Your task to perform on an android device: Search for razer blade on newegg, select the first entry, and add it to the cart. Image 0: 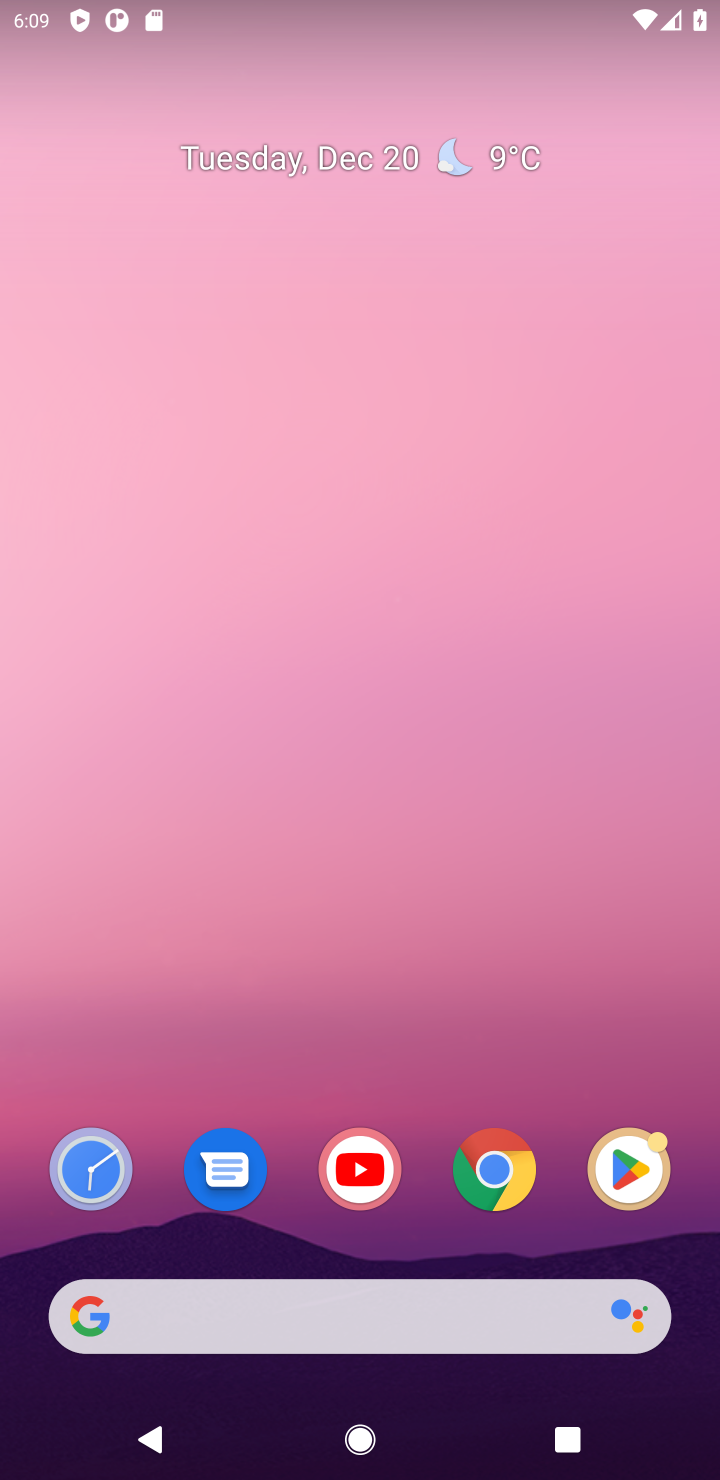
Step 0: click (470, 1194)
Your task to perform on an android device: Search for razer blade on newegg, select the first entry, and add it to the cart. Image 1: 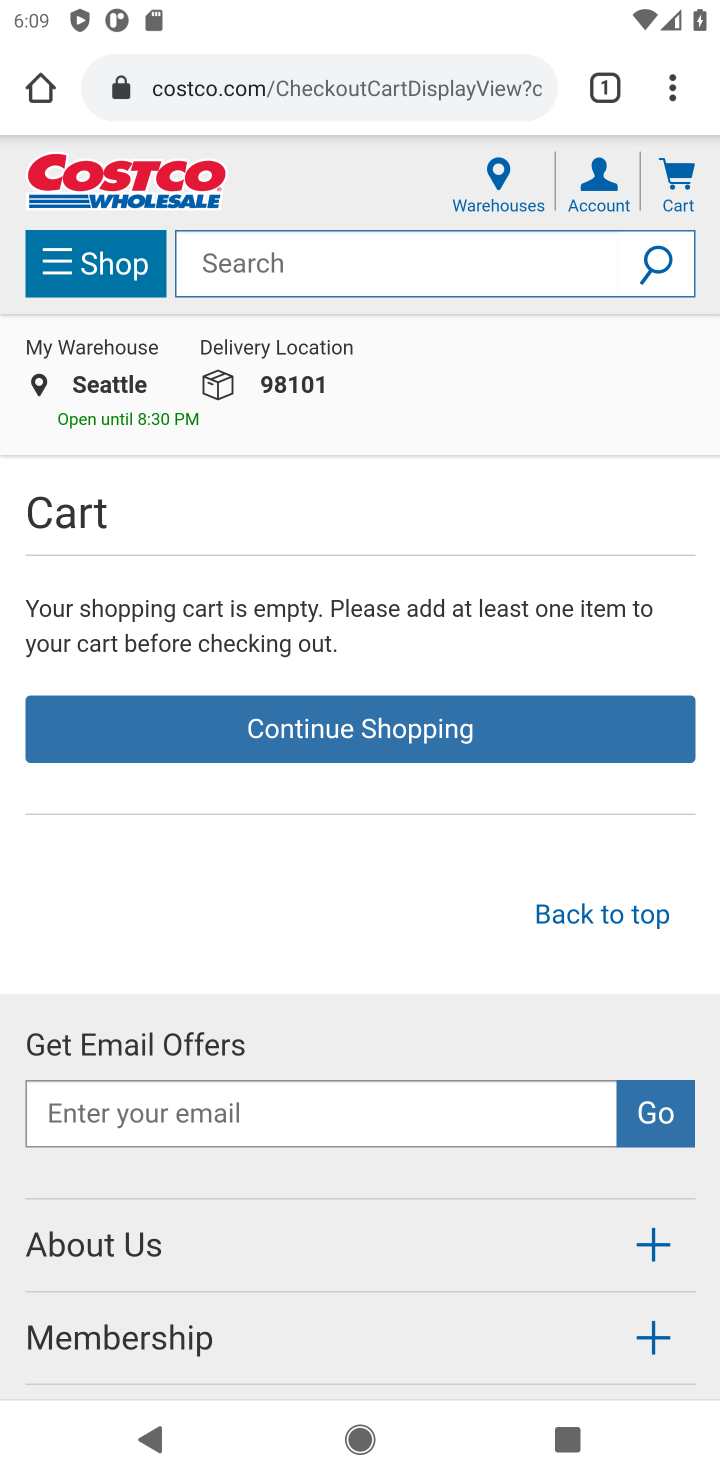
Step 1: click (308, 102)
Your task to perform on an android device: Search for razer blade on newegg, select the first entry, and add it to the cart. Image 2: 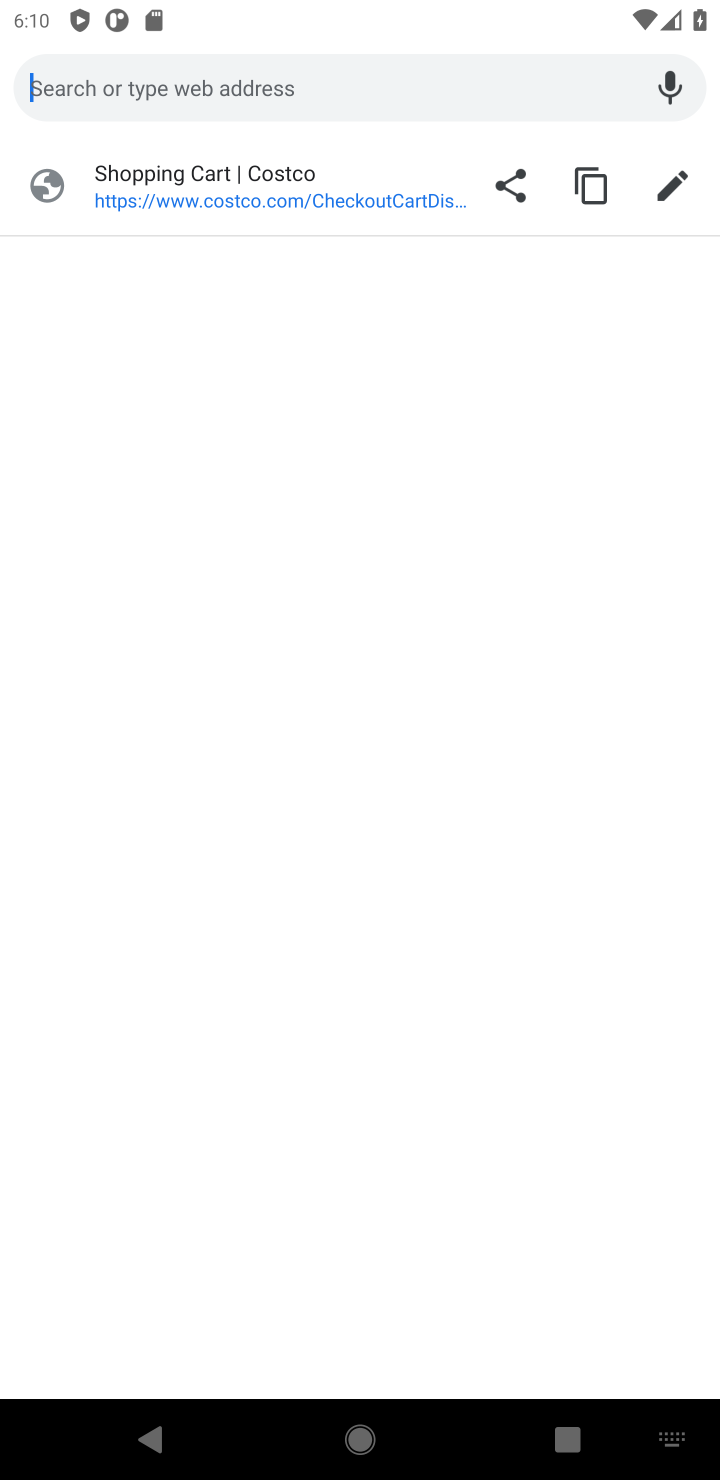
Step 2: type "newegg"
Your task to perform on an android device: Search for razer blade on newegg, select the first entry, and add it to the cart. Image 3: 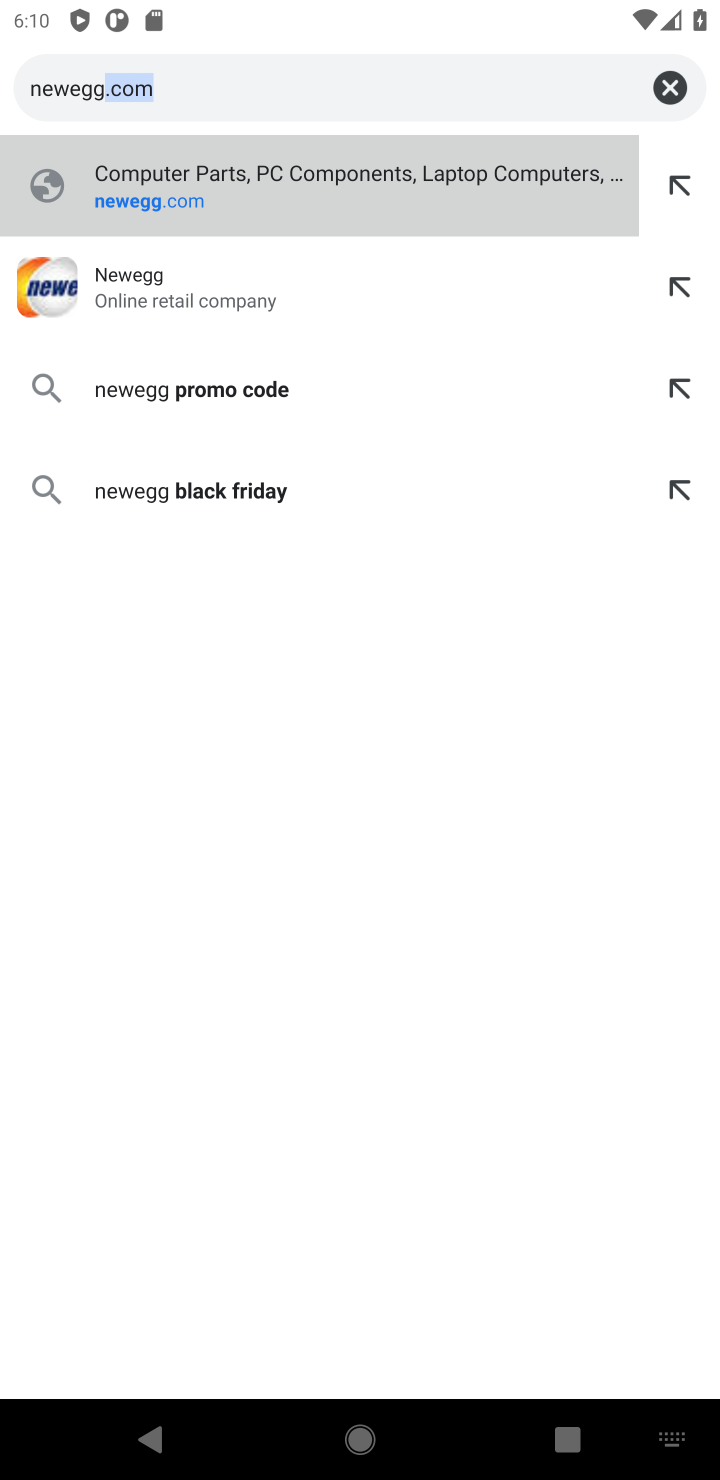
Step 3: click (264, 190)
Your task to perform on an android device: Search for razer blade on newegg, select the first entry, and add it to the cart. Image 4: 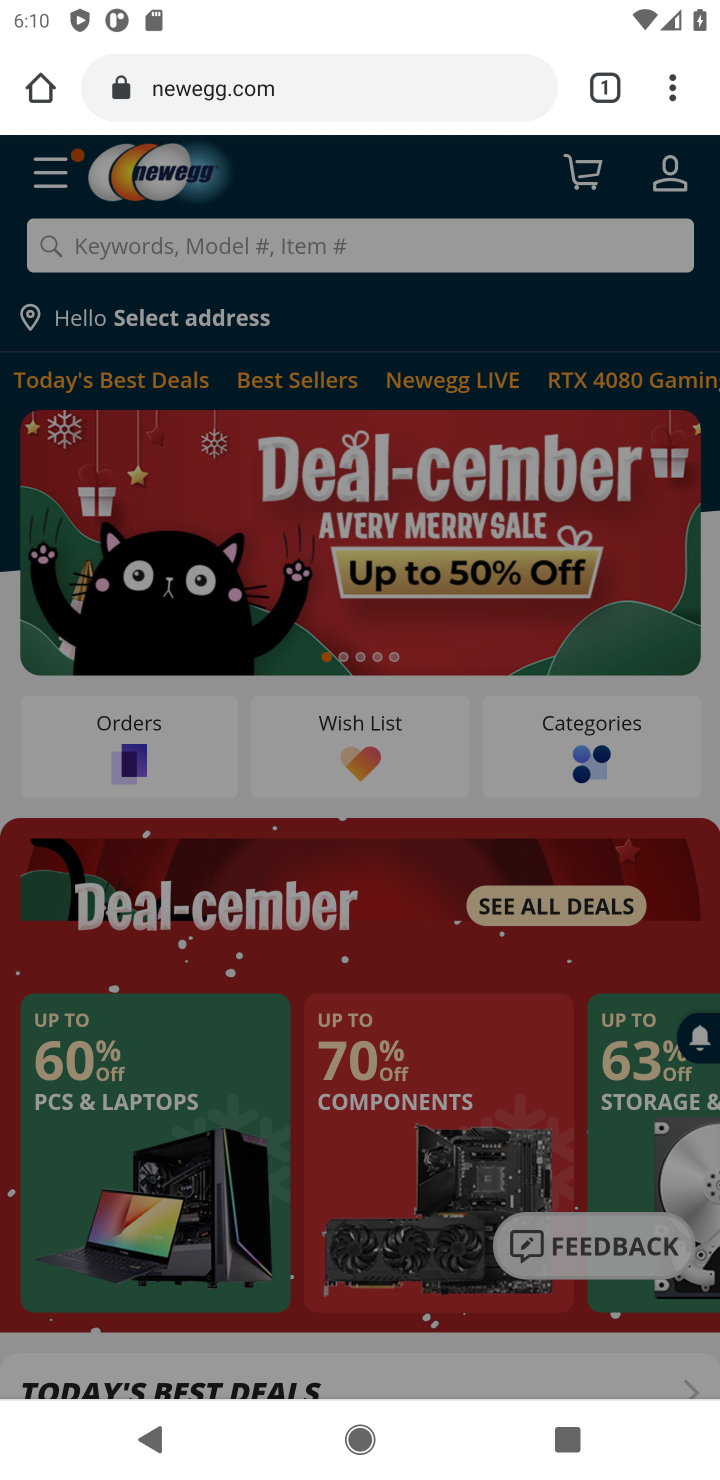
Step 4: click (306, 252)
Your task to perform on an android device: Search for razer blade on newegg, select the first entry, and add it to the cart. Image 5: 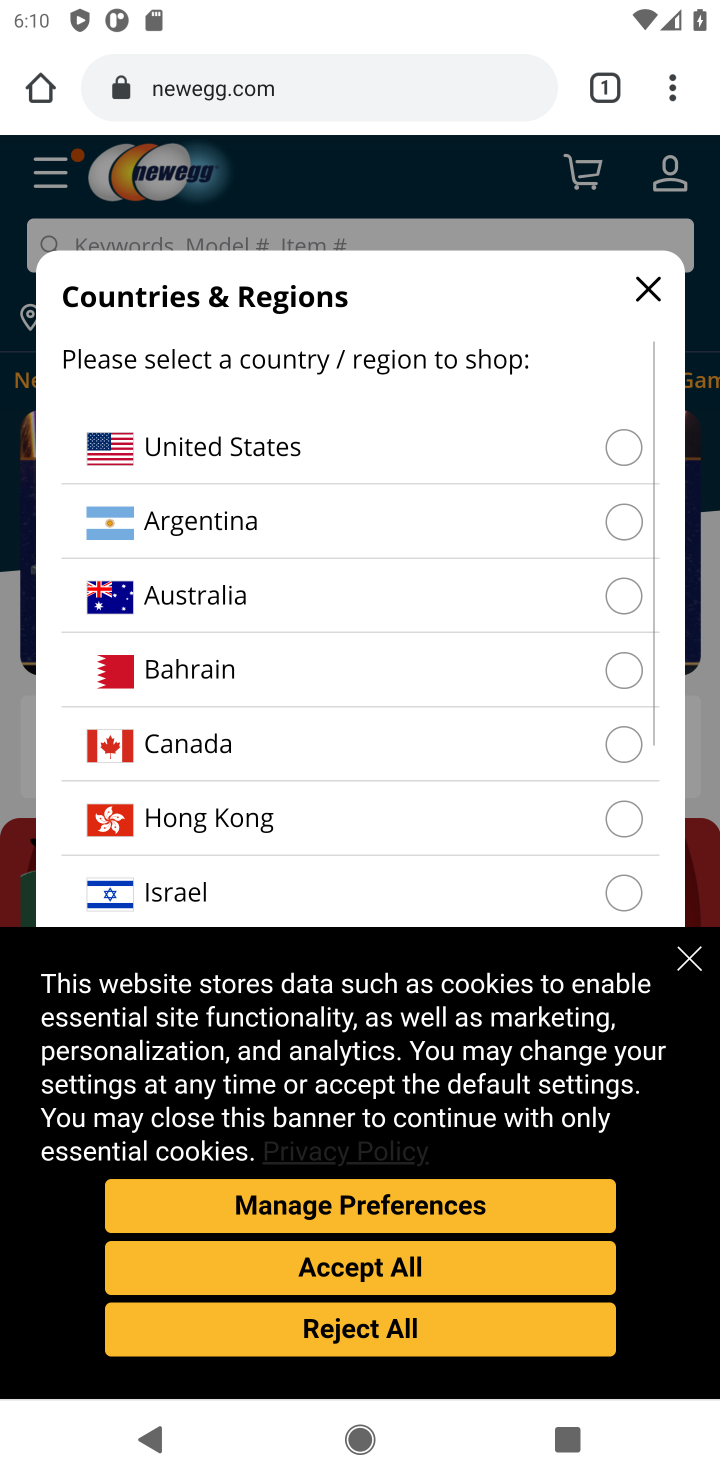
Step 5: type "razer blade"
Your task to perform on an android device: Search for razer blade on newegg, select the first entry, and add it to the cart. Image 6: 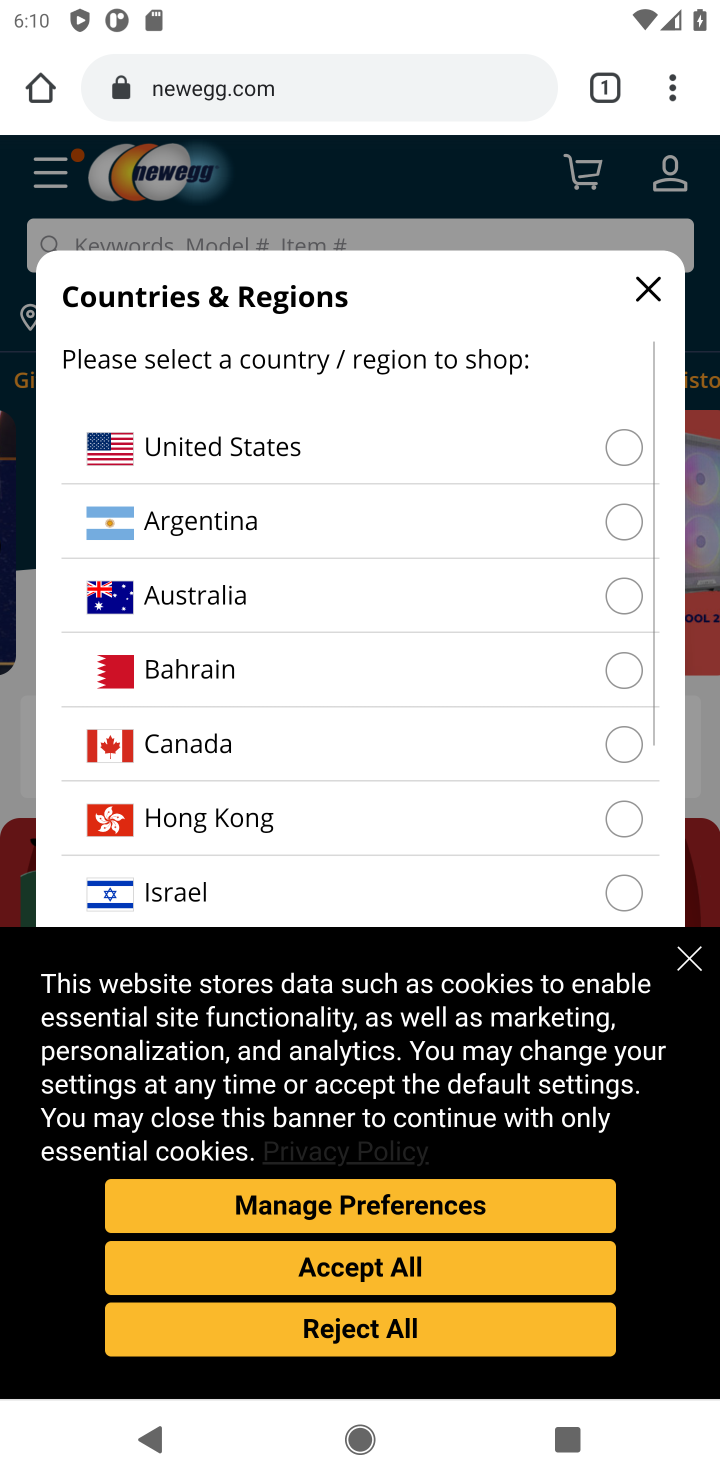
Step 6: click (340, 446)
Your task to perform on an android device: Search for razer blade on newegg, select the first entry, and add it to the cart. Image 7: 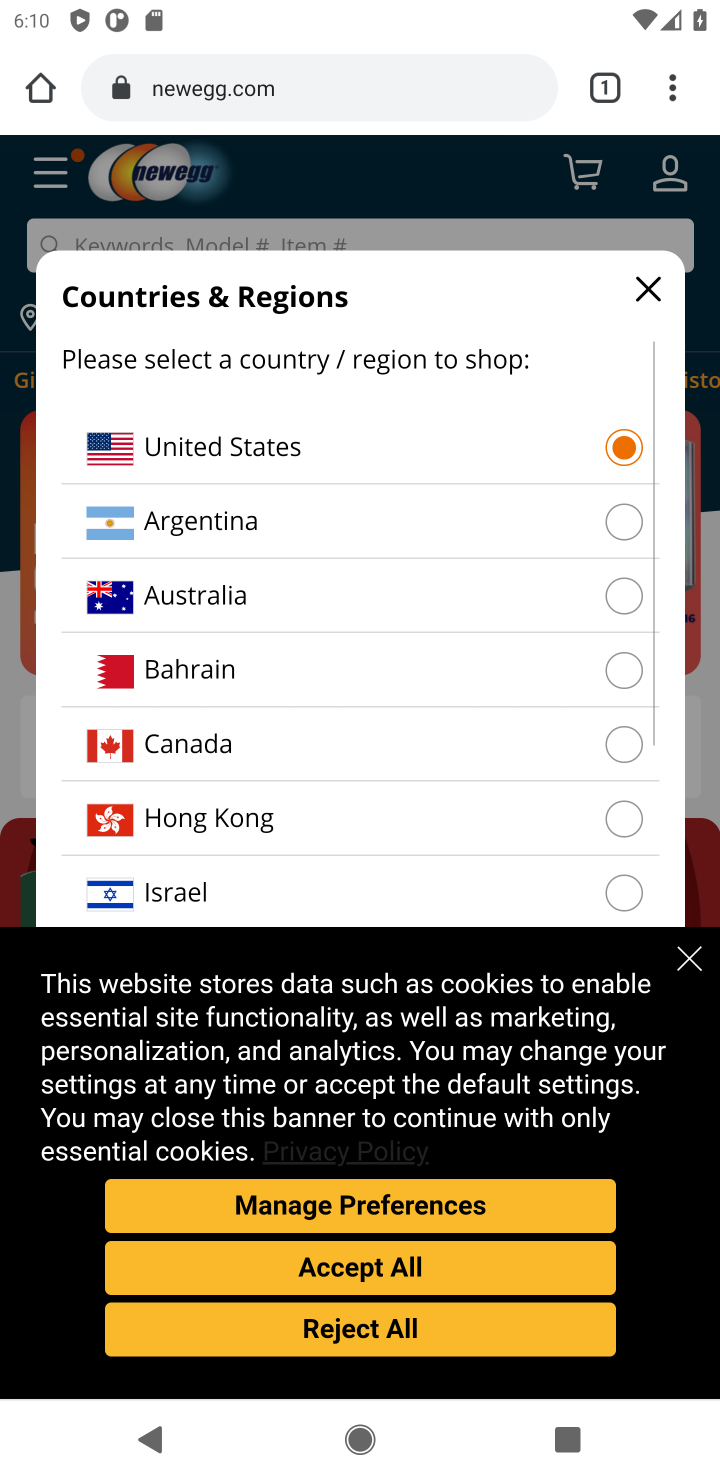
Step 7: click (387, 1276)
Your task to perform on an android device: Search for razer blade on newegg, select the first entry, and add it to the cart. Image 8: 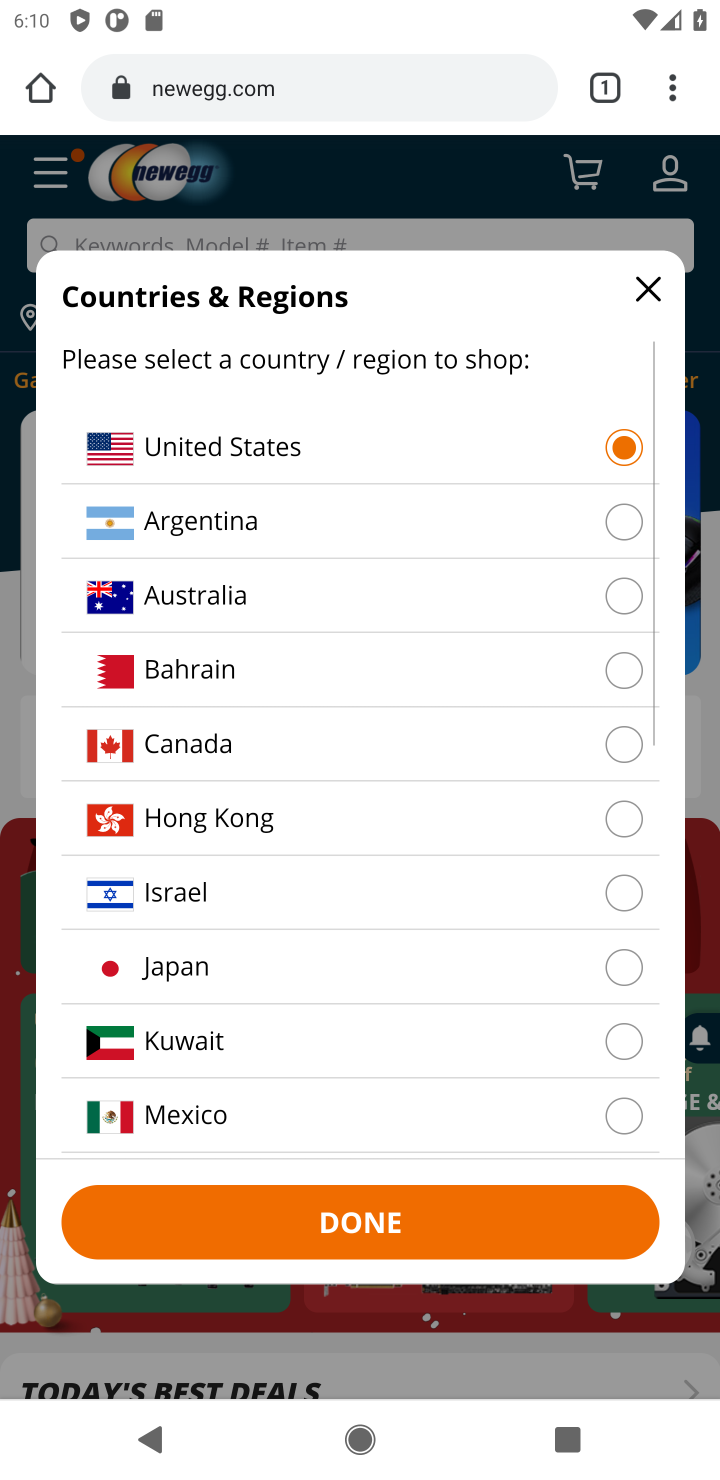
Step 8: click (383, 1198)
Your task to perform on an android device: Search for razer blade on newegg, select the first entry, and add it to the cart. Image 9: 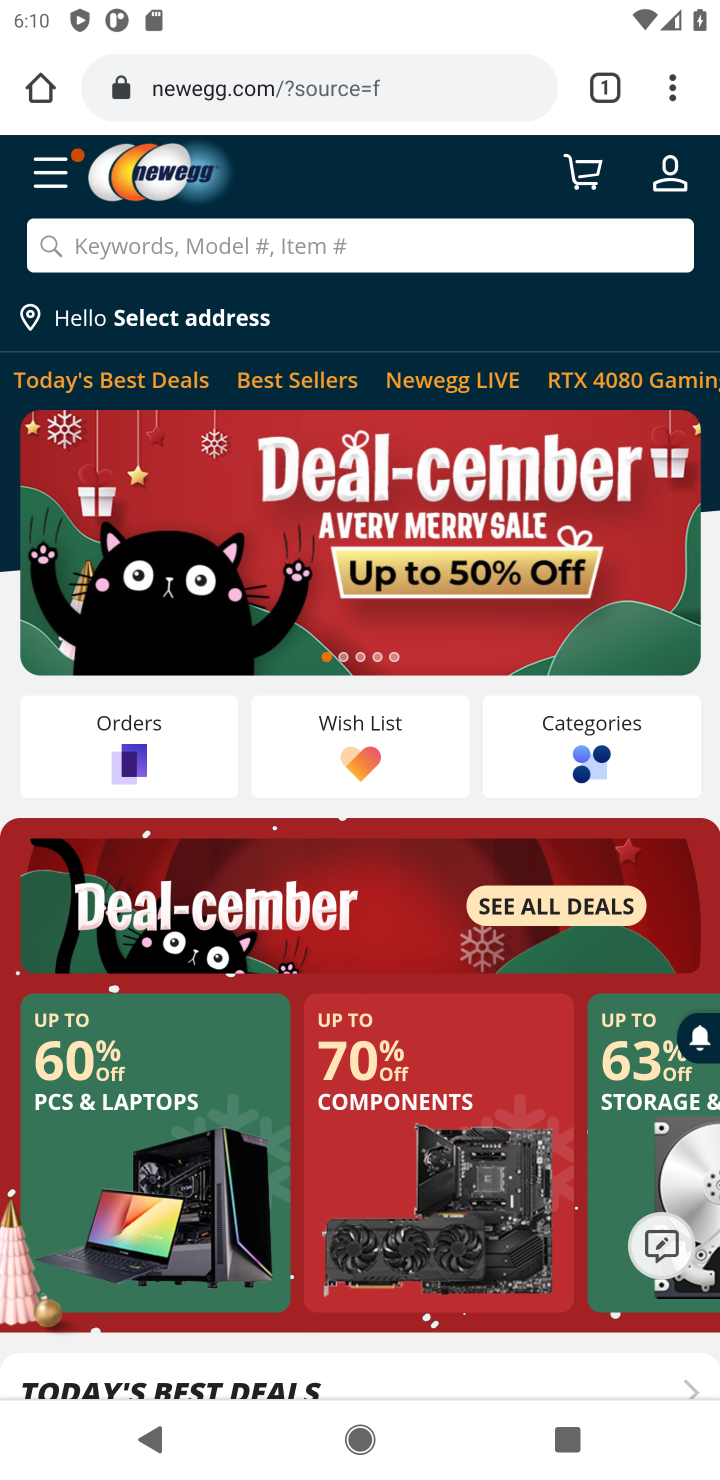
Step 9: click (379, 249)
Your task to perform on an android device: Search for razer blade on newegg, select the first entry, and add it to the cart. Image 10: 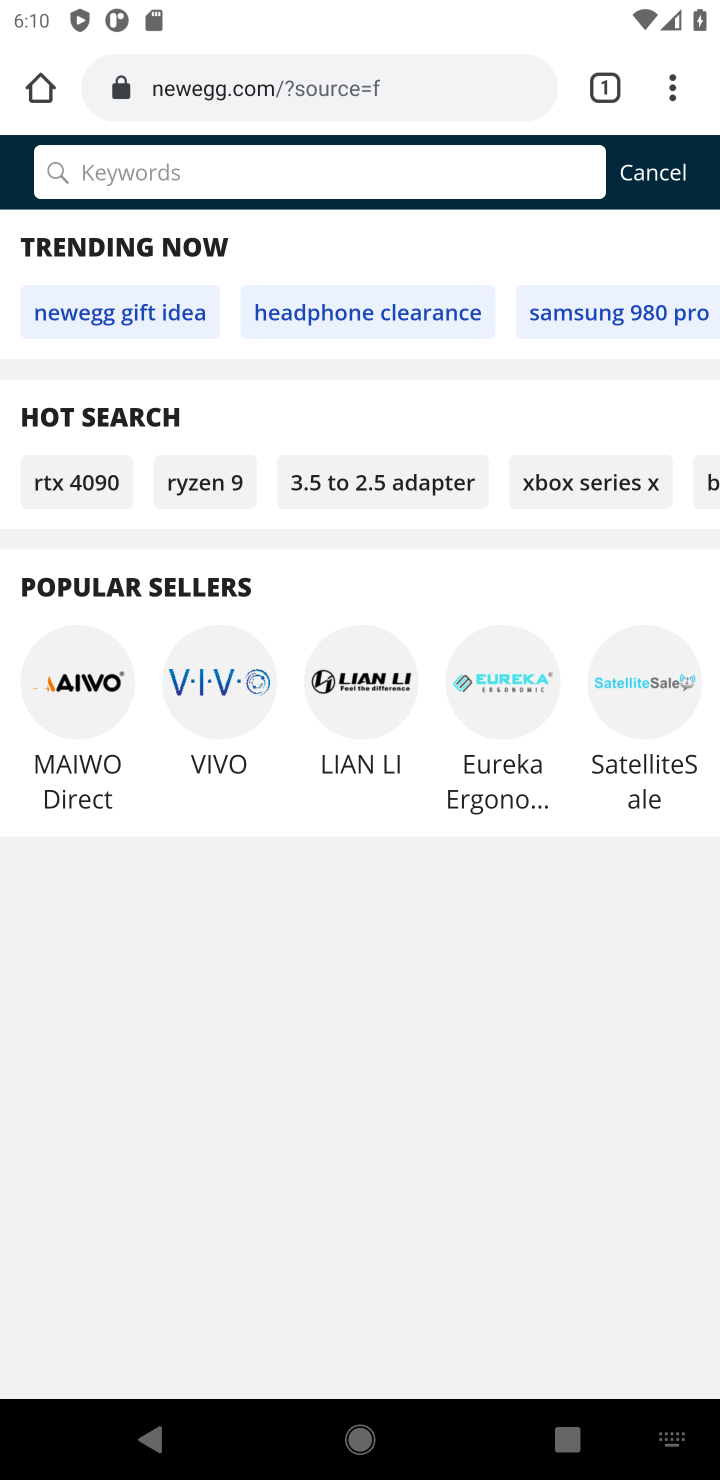
Step 10: type "razer blade"
Your task to perform on an android device: Search for razer blade on newegg, select the first entry, and add it to the cart. Image 11: 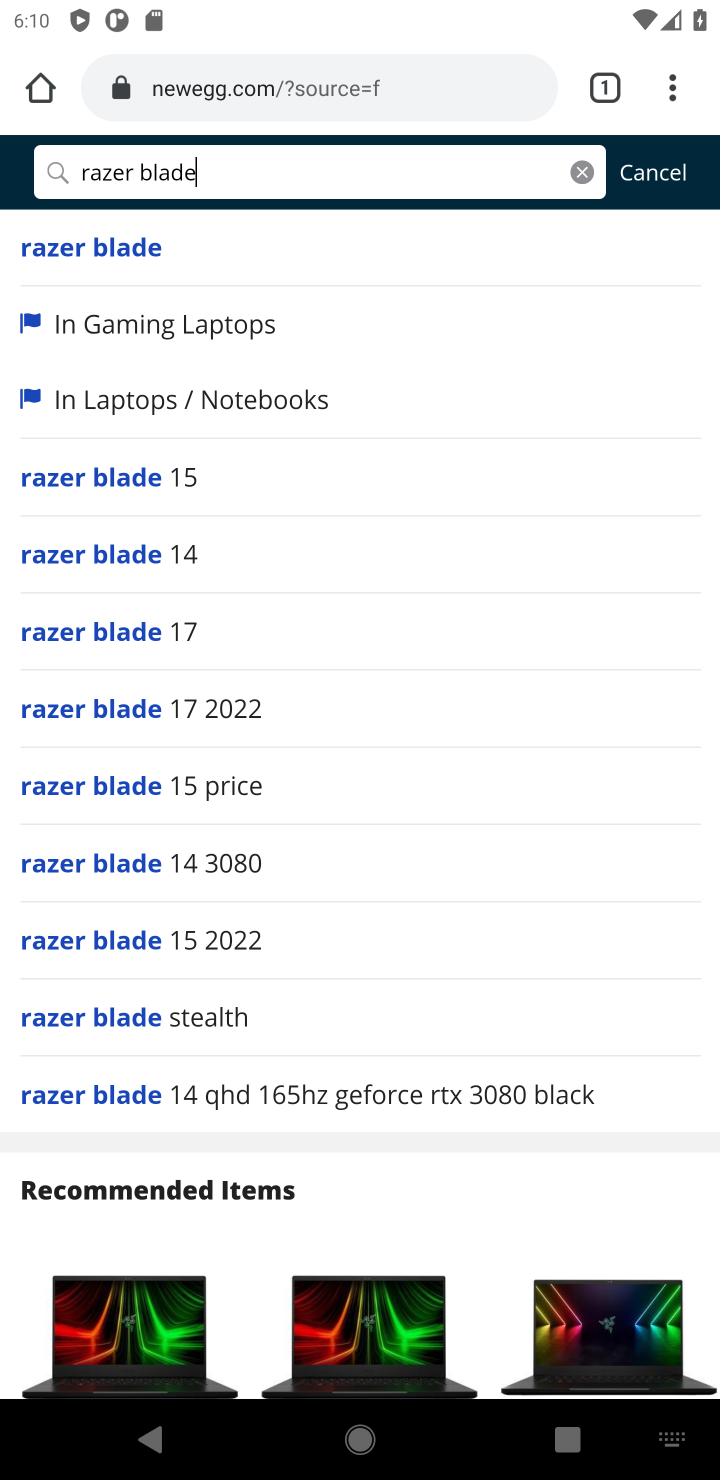
Step 11: click (154, 262)
Your task to perform on an android device: Search for razer blade on newegg, select the first entry, and add it to the cart. Image 12: 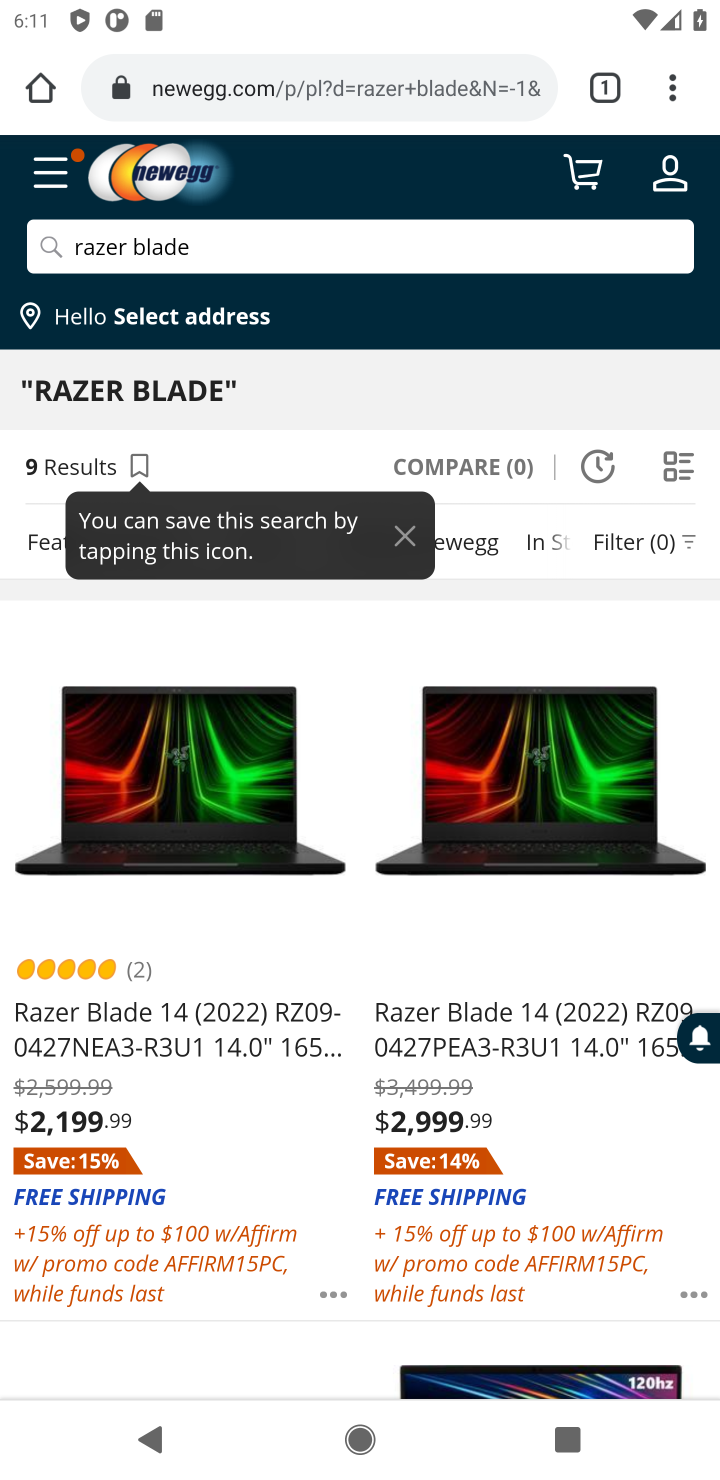
Step 12: click (197, 1134)
Your task to perform on an android device: Search for razer blade on newegg, select the first entry, and add it to the cart. Image 13: 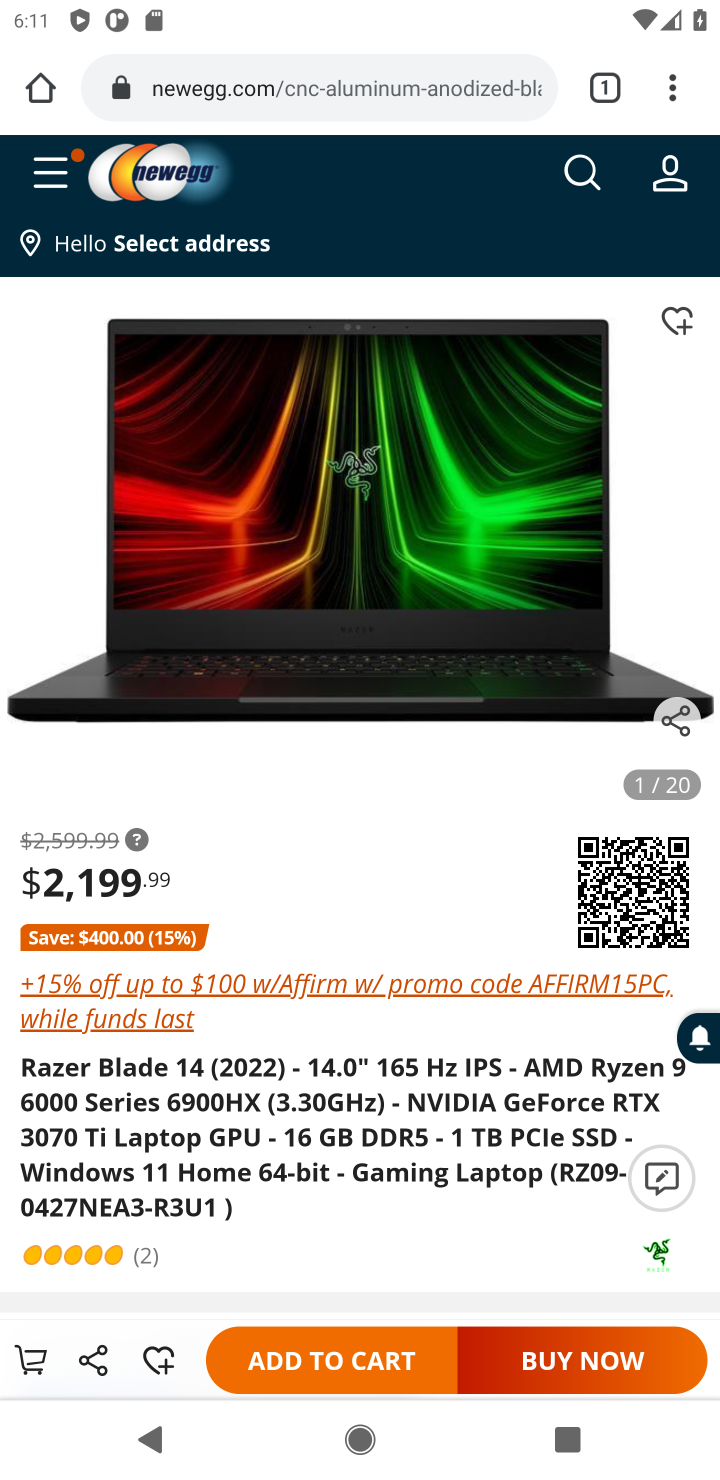
Step 13: click (310, 1352)
Your task to perform on an android device: Search for razer blade on newegg, select the first entry, and add it to the cart. Image 14: 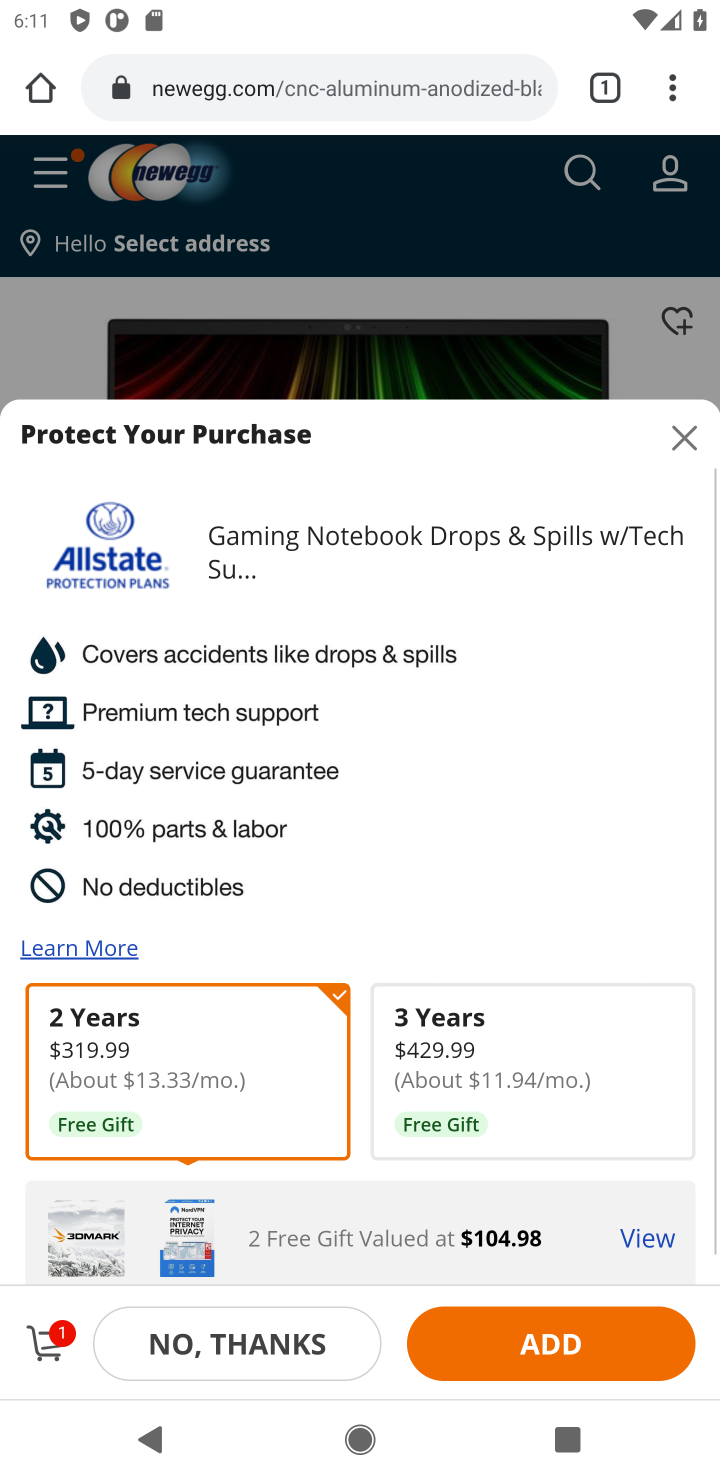
Step 14: task complete